Your task to perform on an android device: turn notification dots on Image 0: 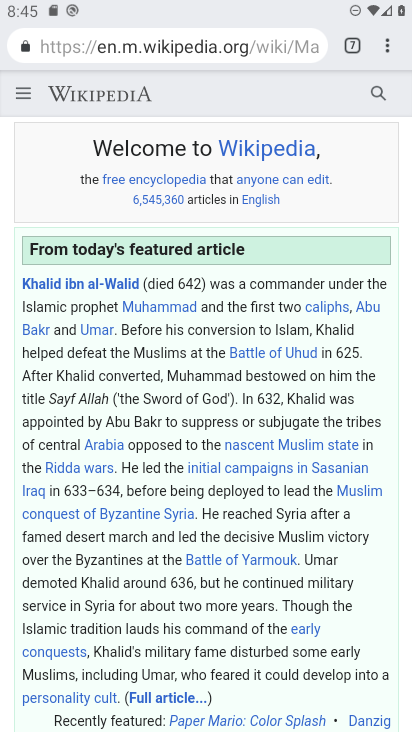
Step 0: press home button
Your task to perform on an android device: turn notification dots on Image 1: 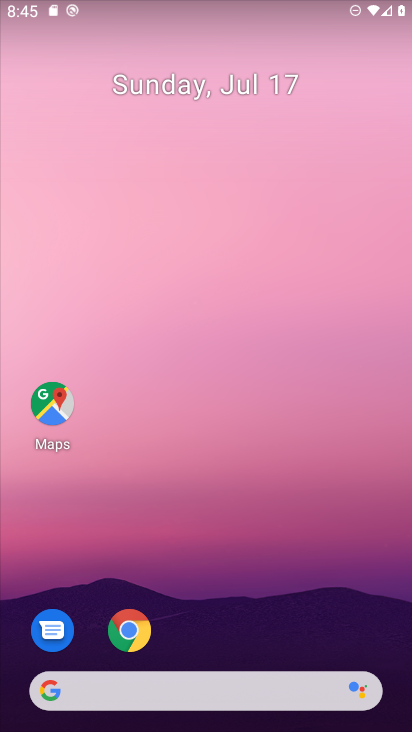
Step 1: drag from (224, 614) to (296, 145)
Your task to perform on an android device: turn notification dots on Image 2: 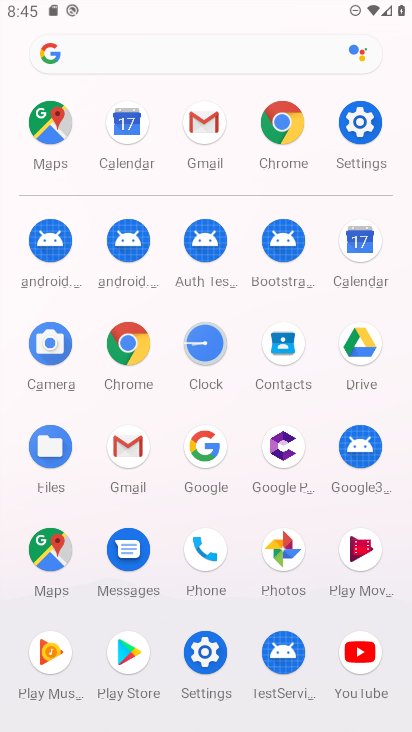
Step 2: click (382, 123)
Your task to perform on an android device: turn notification dots on Image 3: 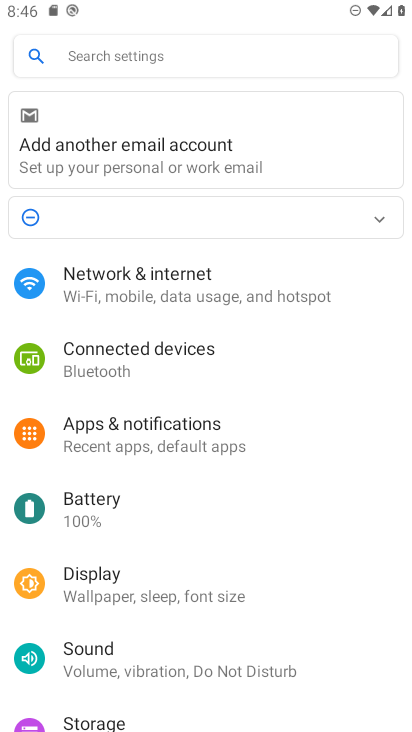
Step 3: click (205, 55)
Your task to perform on an android device: turn notification dots on Image 4: 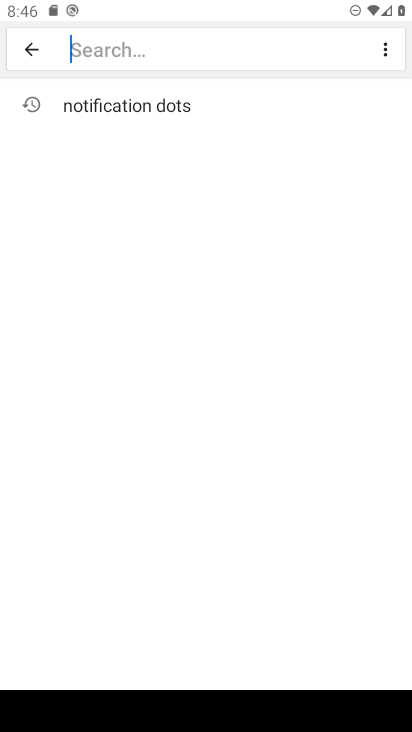
Step 4: type "notification dotsnotific"
Your task to perform on an android device: turn notification dots on Image 5: 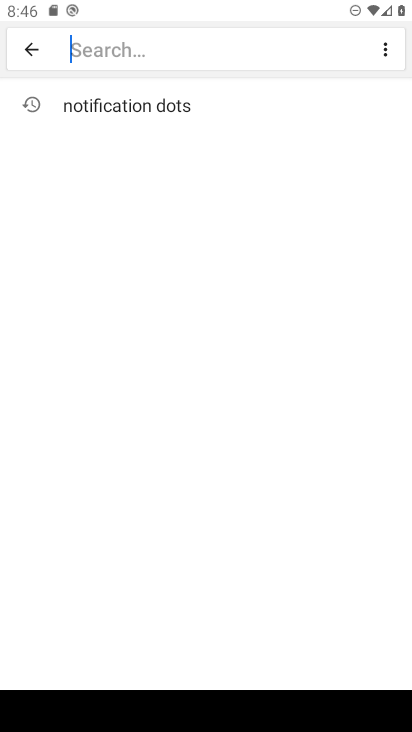
Step 5: click (196, 114)
Your task to perform on an android device: turn notification dots on Image 6: 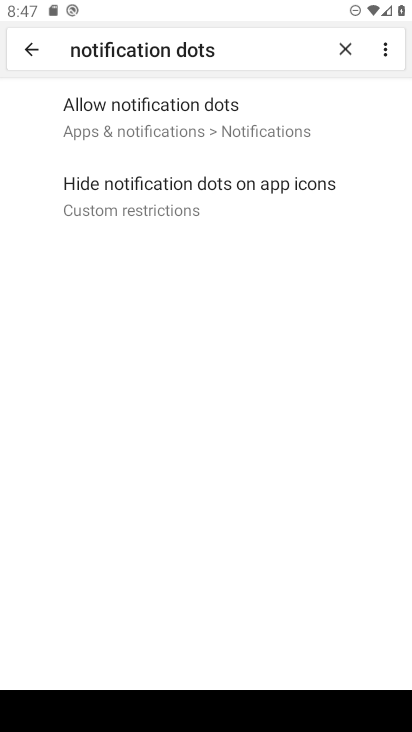
Step 6: click (237, 96)
Your task to perform on an android device: turn notification dots on Image 7: 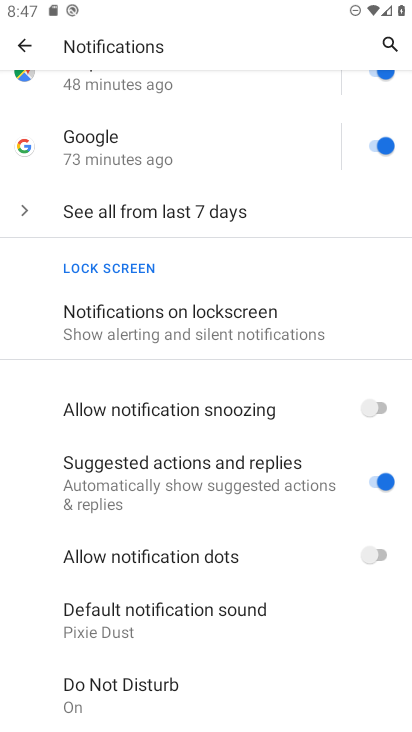
Step 7: click (378, 548)
Your task to perform on an android device: turn notification dots on Image 8: 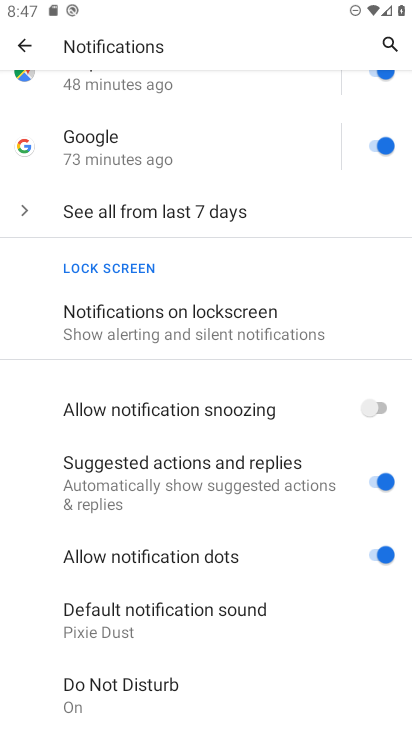
Step 8: task complete